Your task to perform on an android device: create a new album in the google photos Image 0: 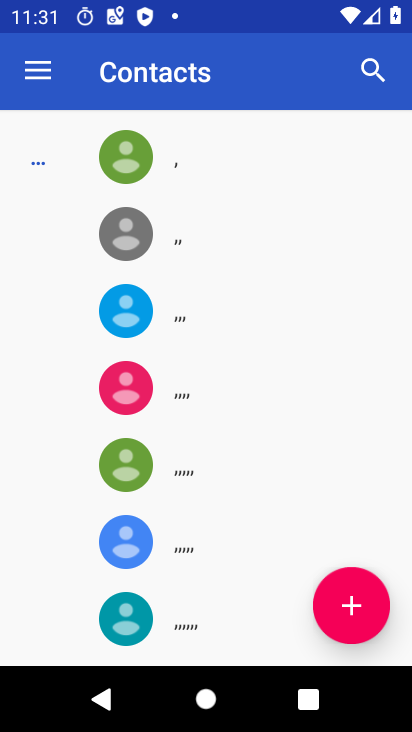
Step 0: press home button
Your task to perform on an android device: create a new album in the google photos Image 1: 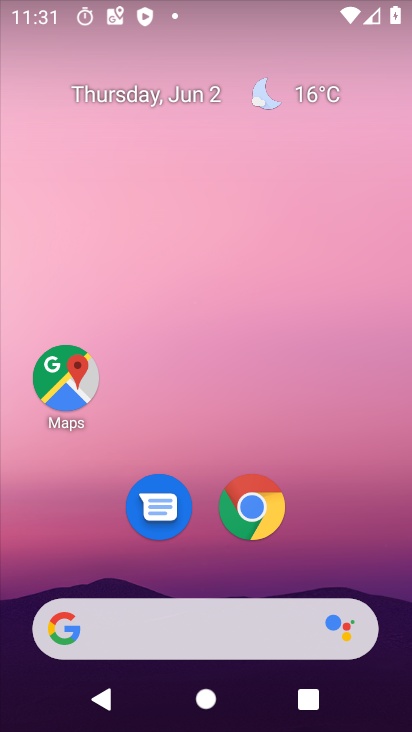
Step 1: drag from (407, 564) to (301, 43)
Your task to perform on an android device: create a new album in the google photos Image 2: 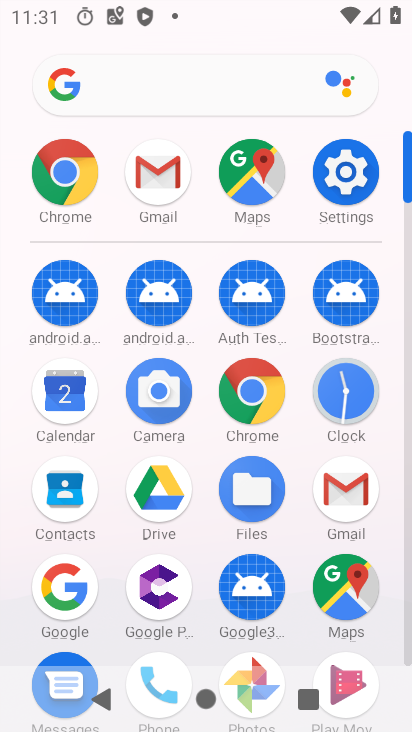
Step 2: click (246, 653)
Your task to perform on an android device: create a new album in the google photos Image 3: 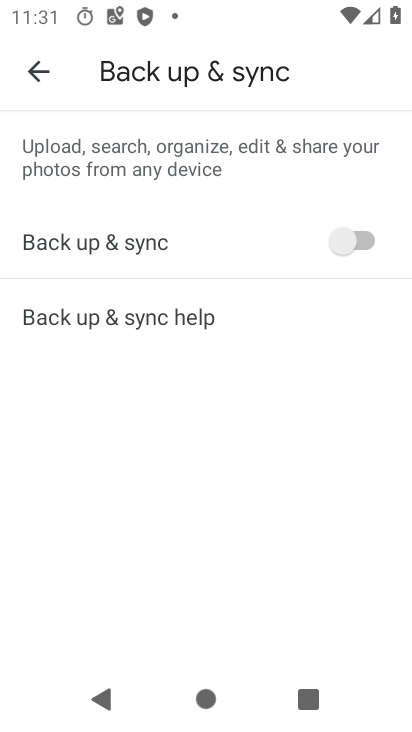
Step 3: press back button
Your task to perform on an android device: create a new album in the google photos Image 4: 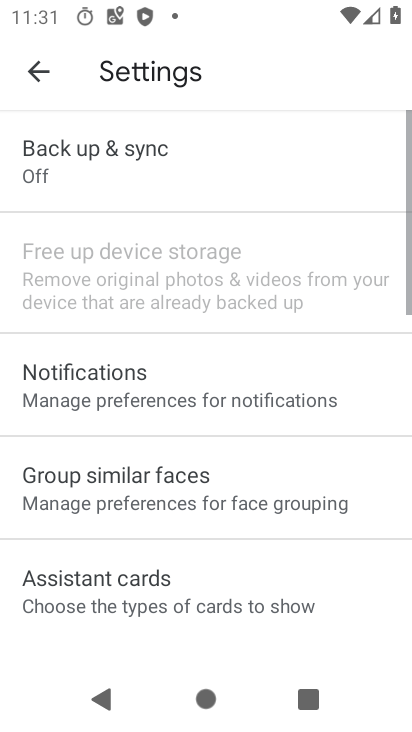
Step 4: press back button
Your task to perform on an android device: create a new album in the google photos Image 5: 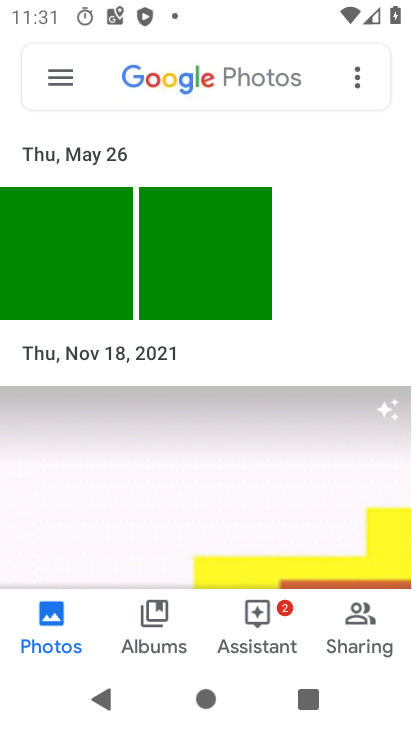
Step 5: click (115, 246)
Your task to perform on an android device: create a new album in the google photos Image 6: 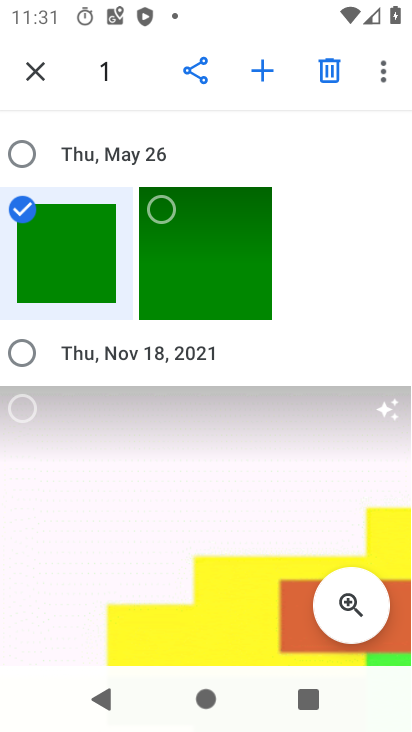
Step 6: click (212, 246)
Your task to perform on an android device: create a new album in the google photos Image 7: 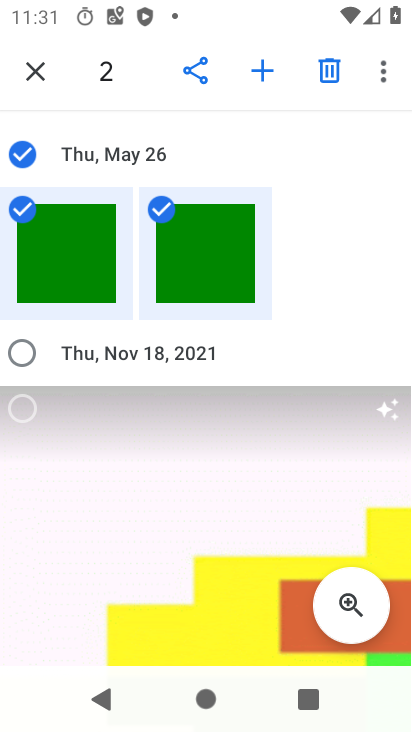
Step 7: click (255, 61)
Your task to perform on an android device: create a new album in the google photos Image 8: 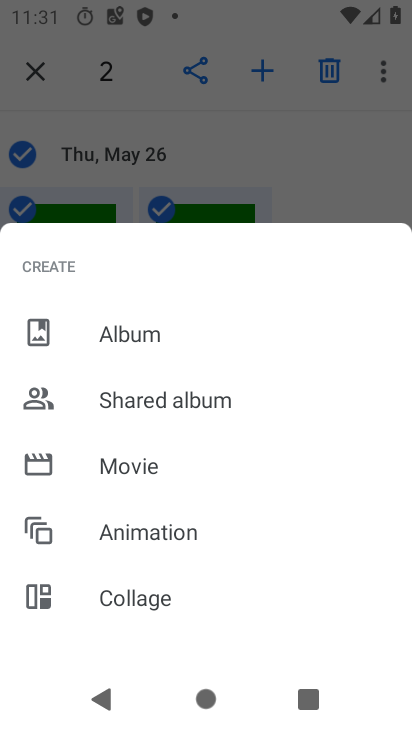
Step 8: click (230, 344)
Your task to perform on an android device: create a new album in the google photos Image 9: 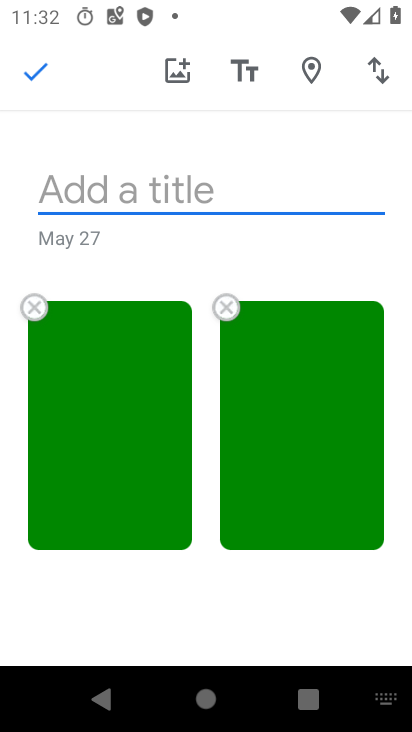
Step 9: type "ussssss"
Your task to perform on an android device: create a new album in the google photos Image 10: 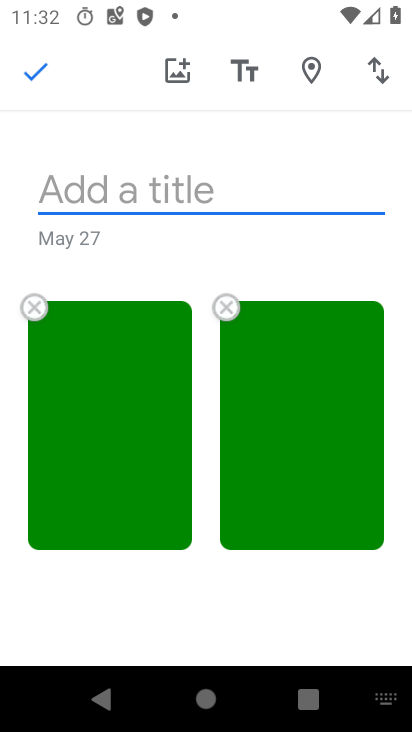
Step 10: click (31, 73)
Your task to perform on an android device: create a new album in the google photos Image 11: 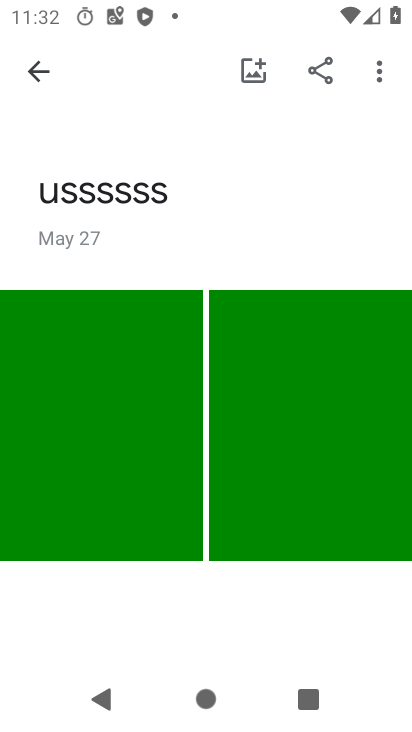
Step 11: task complete